Your task to perform on an android device: turn pop-ups off in chrome Image 0: 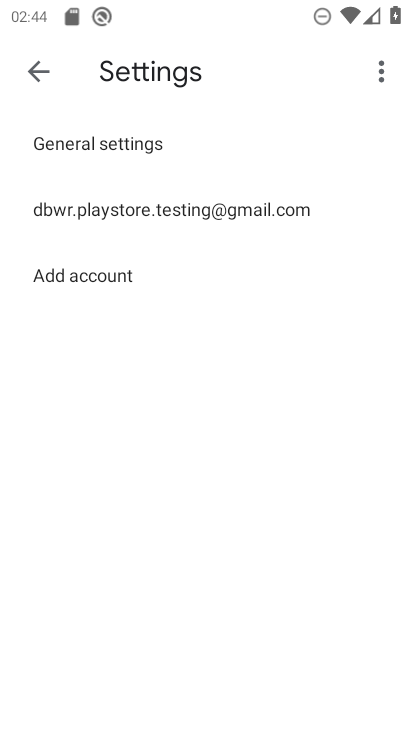
Step 0: press home button
Your task to perform on an android device: turn pop-ups off in chrome Image 1: 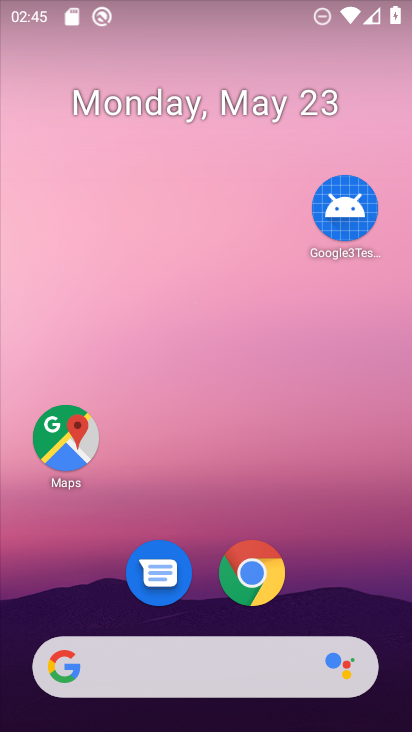
Step 1: click (262, 586)
Your task to perform on an android device: turn pop-ups off in chrome Image 2: 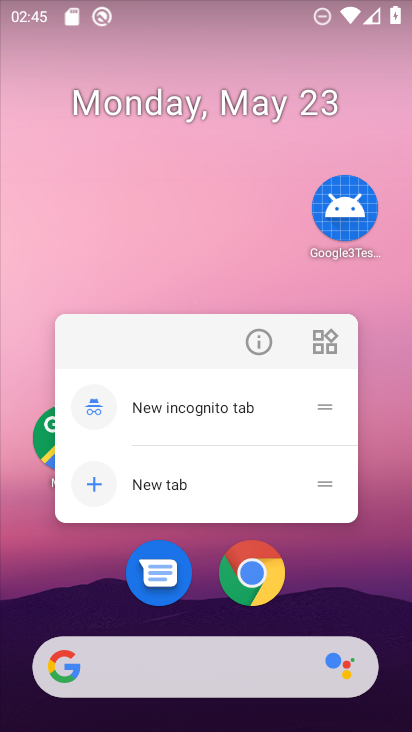
Step 2: click (247, 571)
Your task to perform on an android device: turn pop-ups off in chrome Image 3: 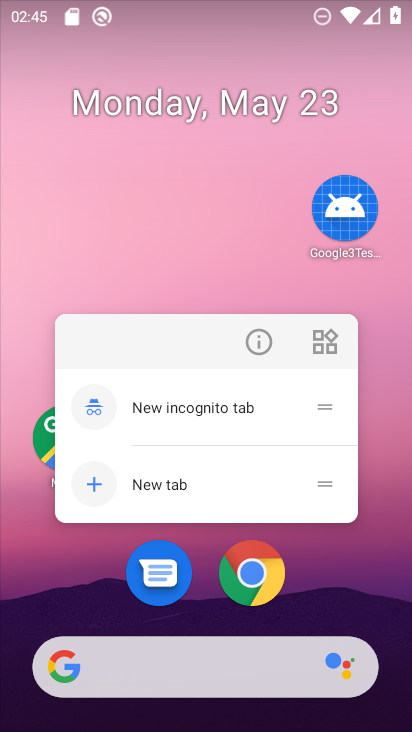
Step 3: click (247, 571)
Your task to perform on an android device: turn pop-ups off in chrome Image 4: 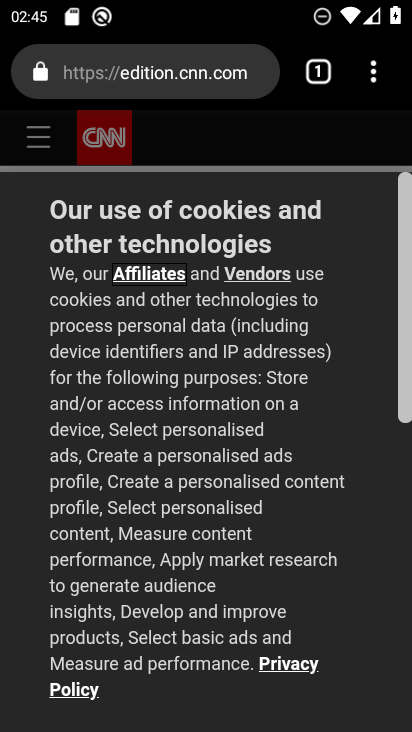
Step 4: drag from (380, 68) to (178, 564)
Your task to perform on an android device: turn pop-ups off in chrome Image 5: 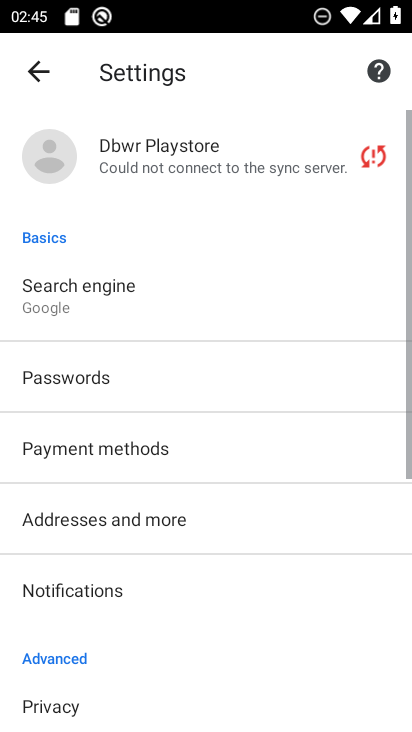
Step 5: drag from (178, 560) to (188, 165)
Your task to perform on an android device: turn pop-ups off in chrome Image 6: 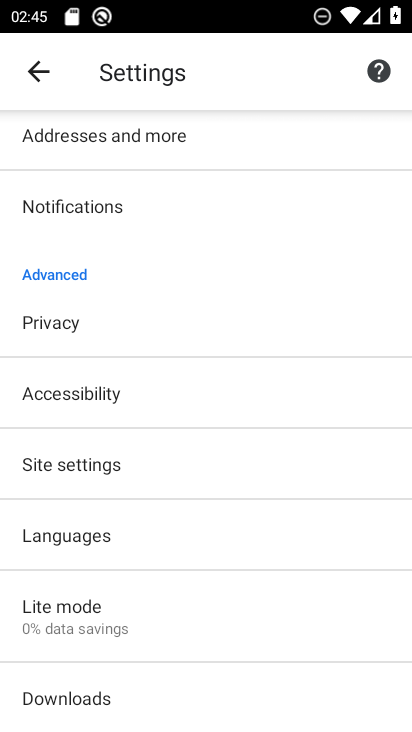
Step 6: click (98, 473)
Your task to perform on an android device: turn pop-ups off in chrome Image 7: 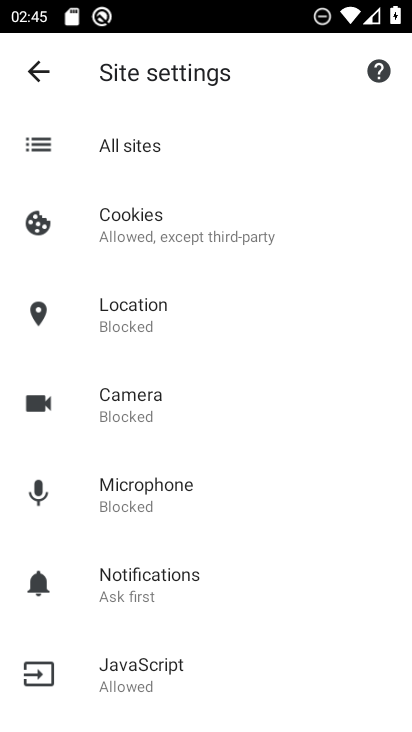
Step 7: drag from (242, 556) to (314, 346)
Your task to perform on an android device: turn pop-ups off in chrome Image 8: 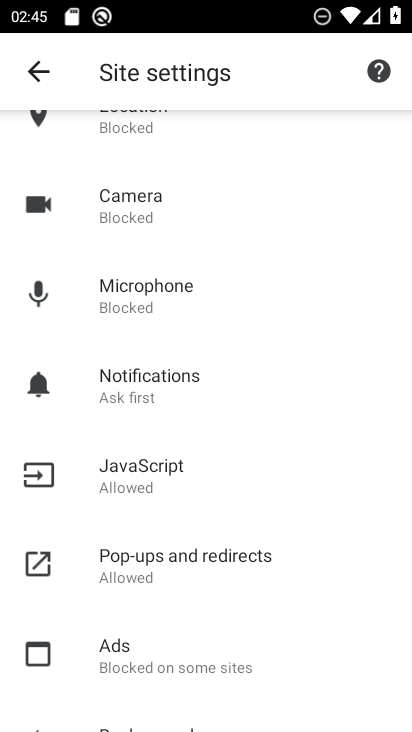
Step 8: click (178, 556)
Your task to perform on an android device: turn pop-ups off in chrome Image 9: 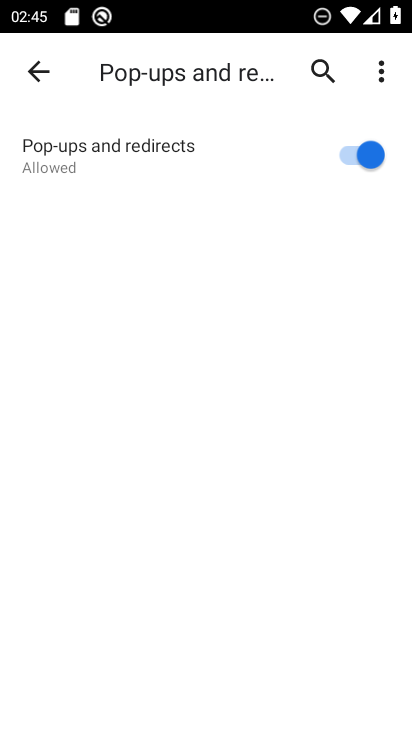
Step 9: click (351, 143)
Your task to perform on an android device: turn pop-ups off in chrome Image 10: 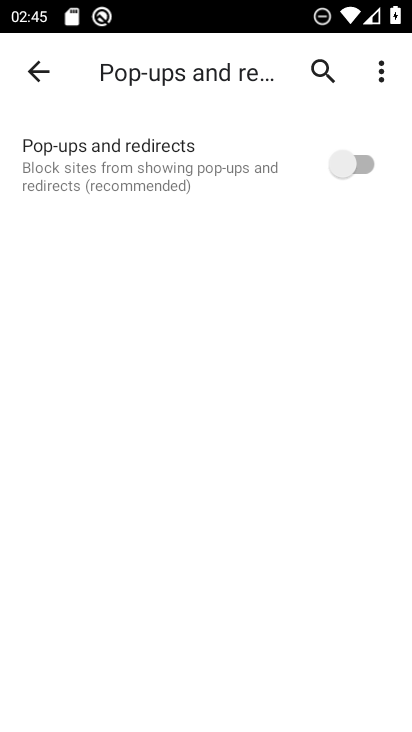
Step 10: task complete